Your task to perform on an android device: Search for flights from NYC to Tokyo Image 0: 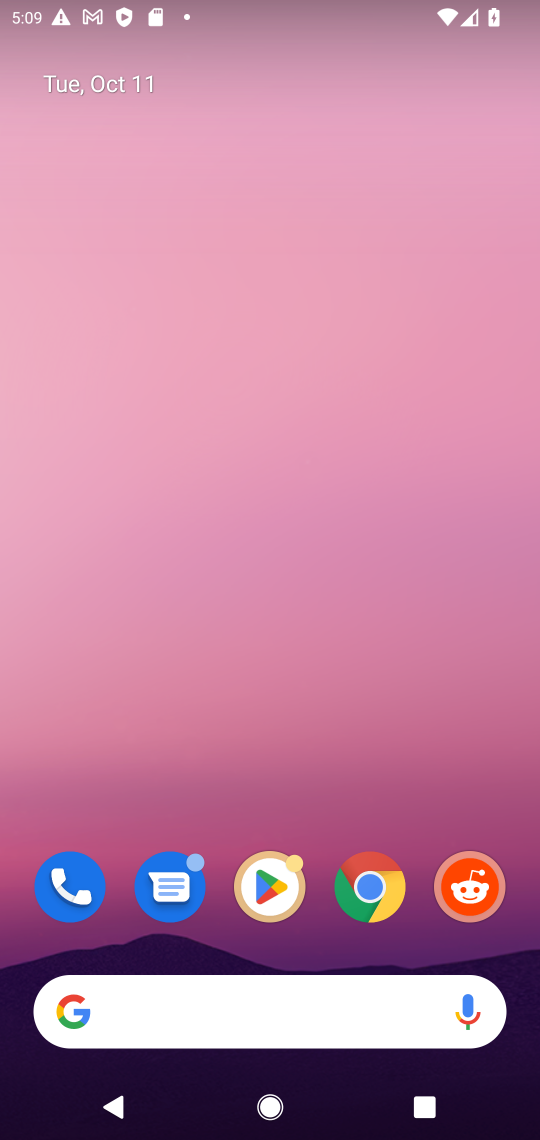
Step 0: click (195, 1017)
Your task to perform on an android device: Search for flights from NYC to Tokyo Image 1: 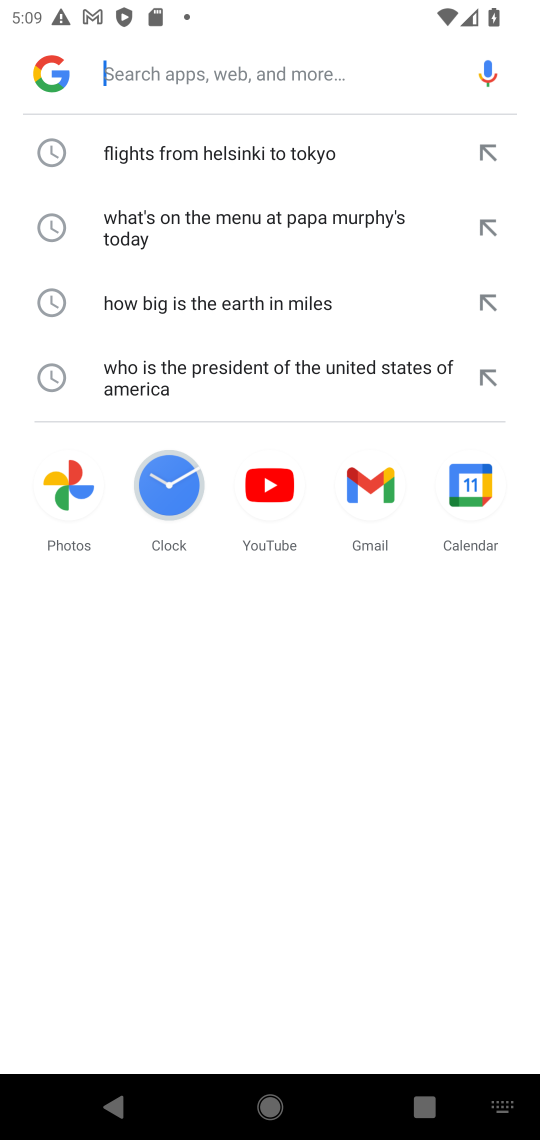
Step 1: type "flights from NYC to Tokyo"
Your task to perform on an android device: Search for flights from NYC to Tokyo Image 2: 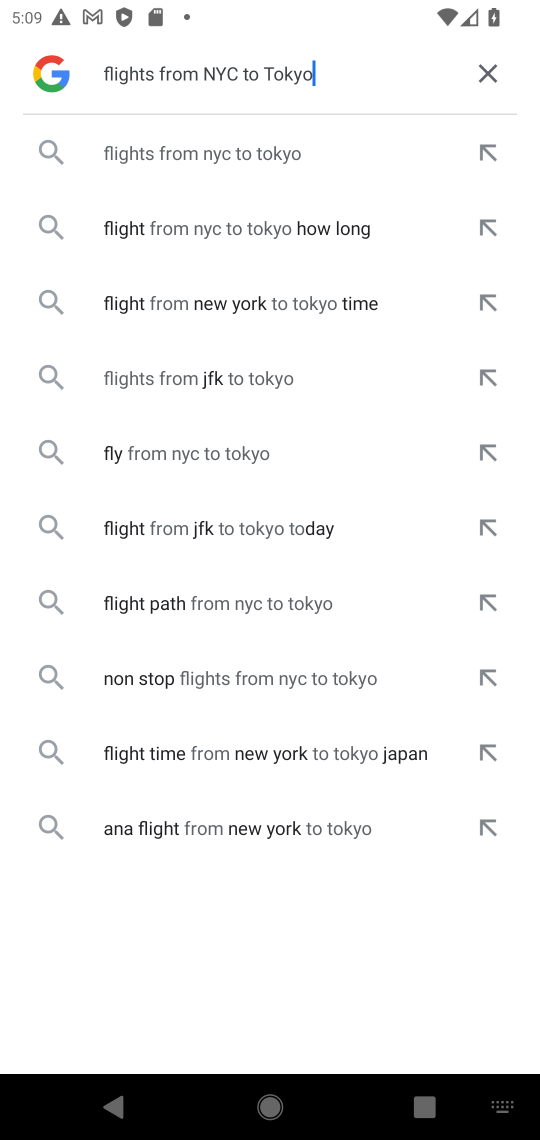
Step 2: click (220, 151)
Your task to perform on an android device: Search for flights from NYC to Tokyo Image 3: 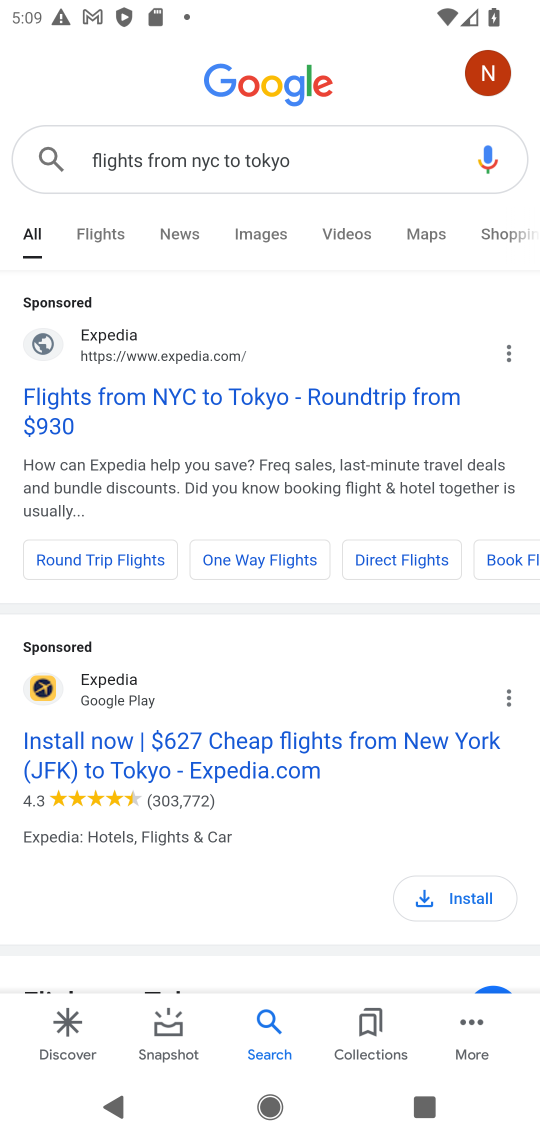
Step 3: click (176, 757)
Your task to perform on an android device: Search for flights from NYC to Tokyo Image 4: 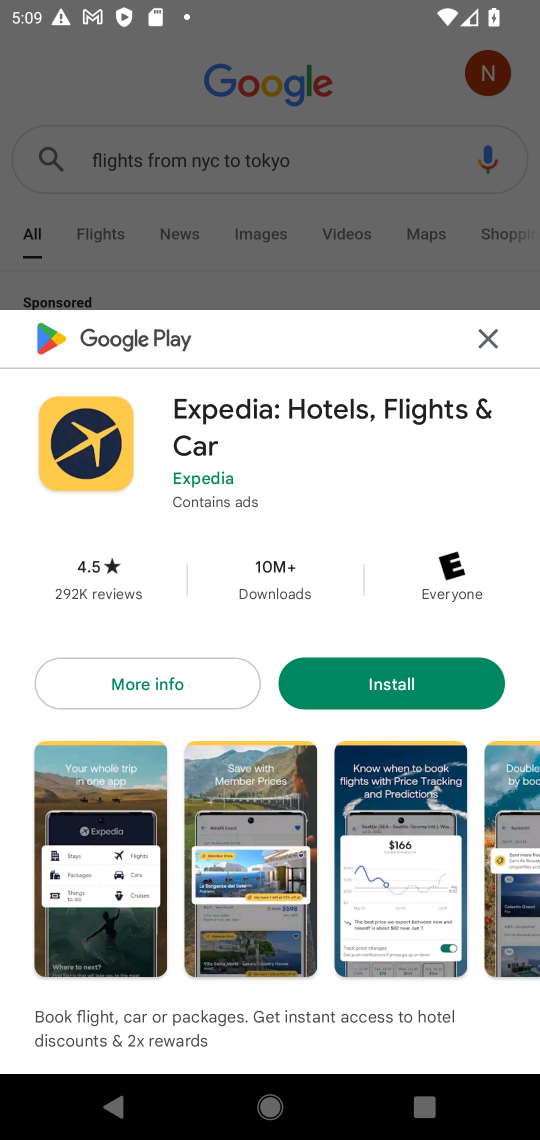
Step 4: click (491, 333)
Your task to perform on an android device: Search for flights from NYC to Tokyo Image 5: 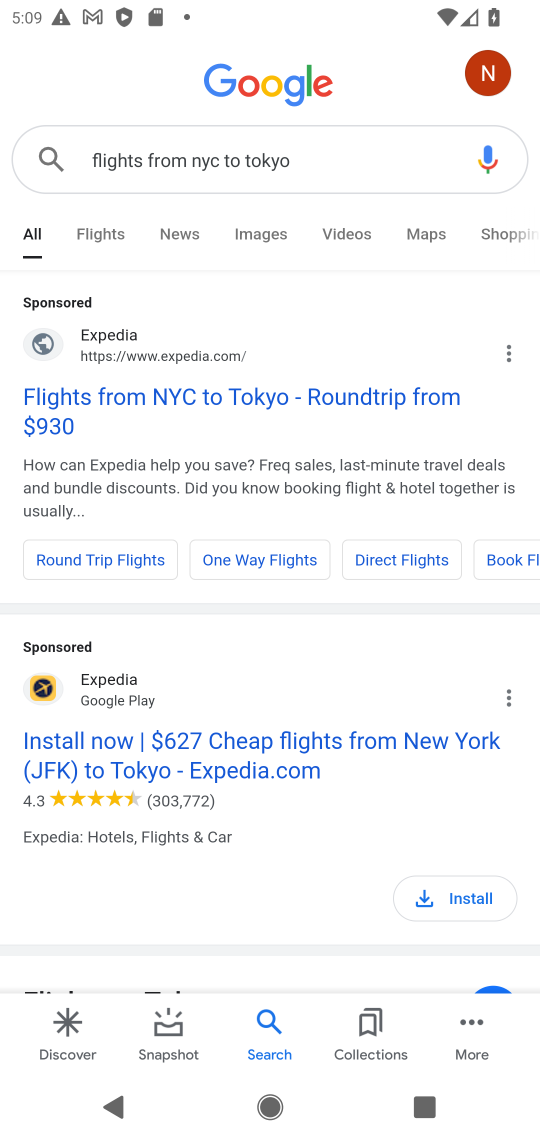
Step 5: drag from (337, 694) to (340, 386)
Your task to perform on an android device: Search for flights from NYC to Tokyo Image 6: 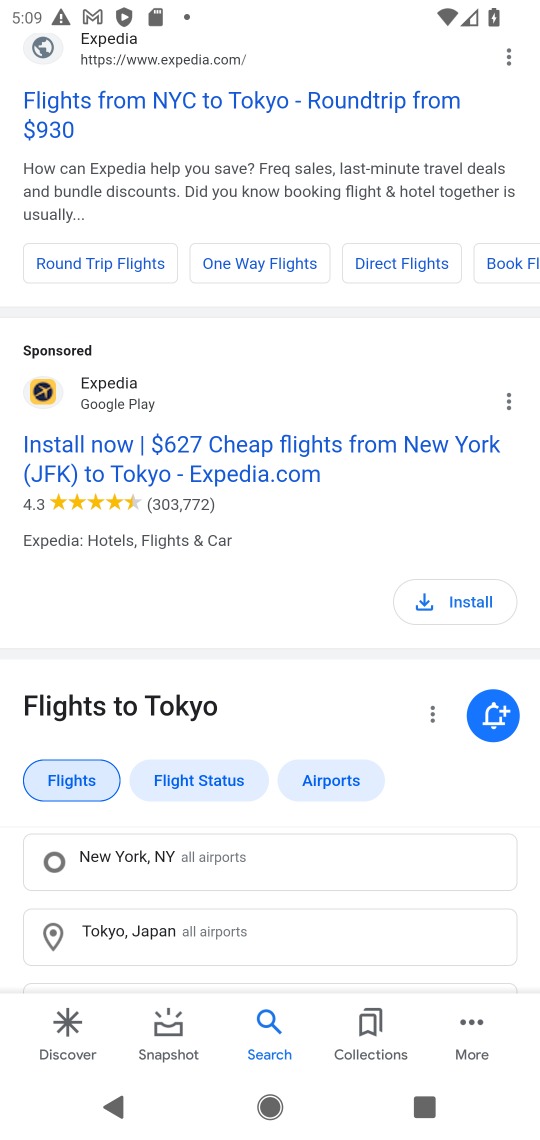
Step 6: drag from (277, 785) to (362, 265)
Your task to perform on an android device: Search for flights from NYC to Tokyo Image 7: 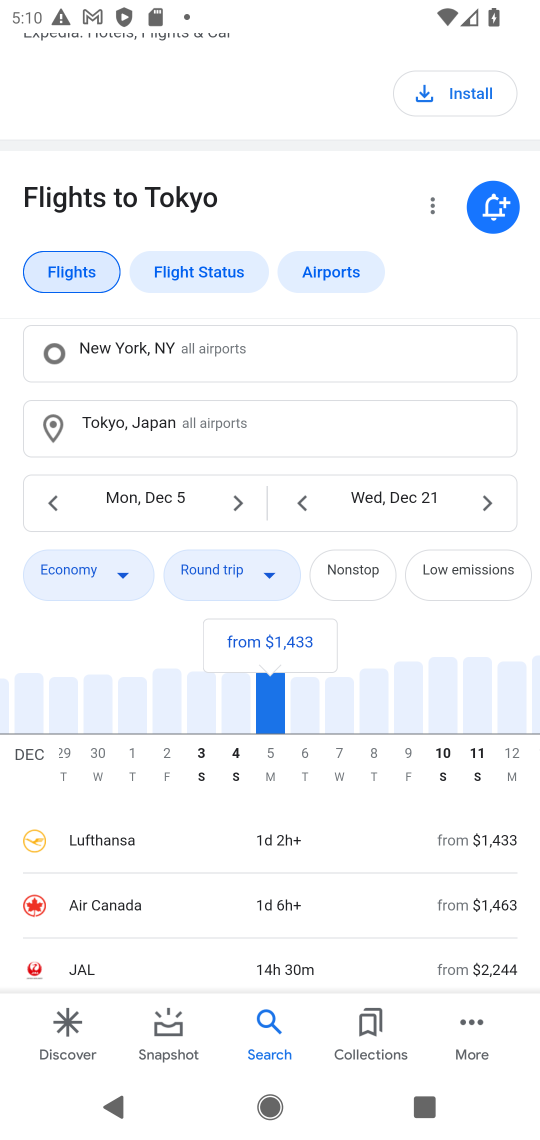
Step 7: drag from (295, 729) to (363, 379)
Your task to perform on an android device: Search for flights from NYC to Tokyo Image 8: 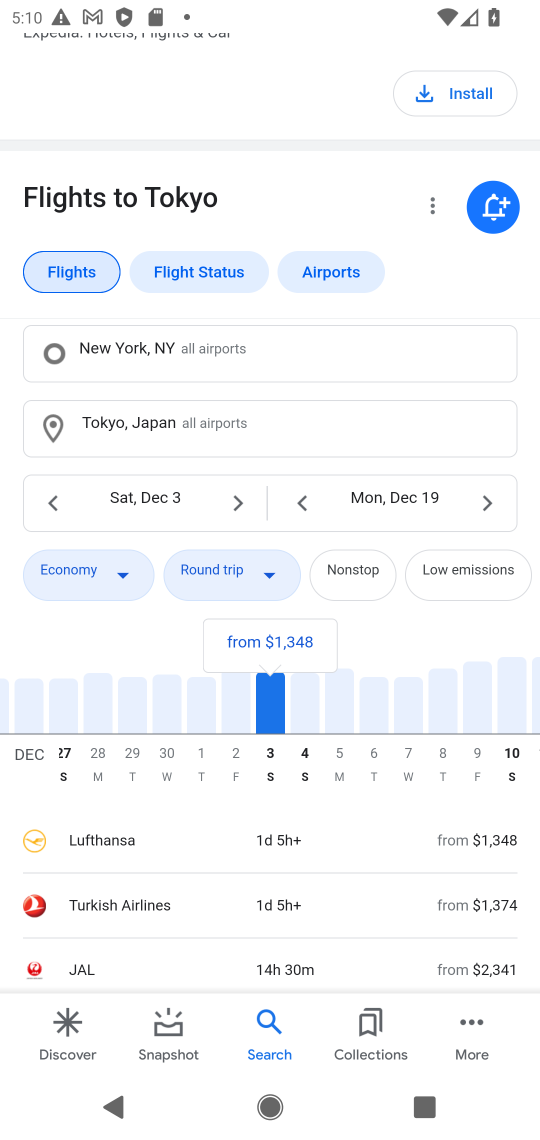
Step 8: drag from (216, 887) to (384, 179)
Your task to perform on an android device: Search for flights from NYC to Tokyo Image 9: 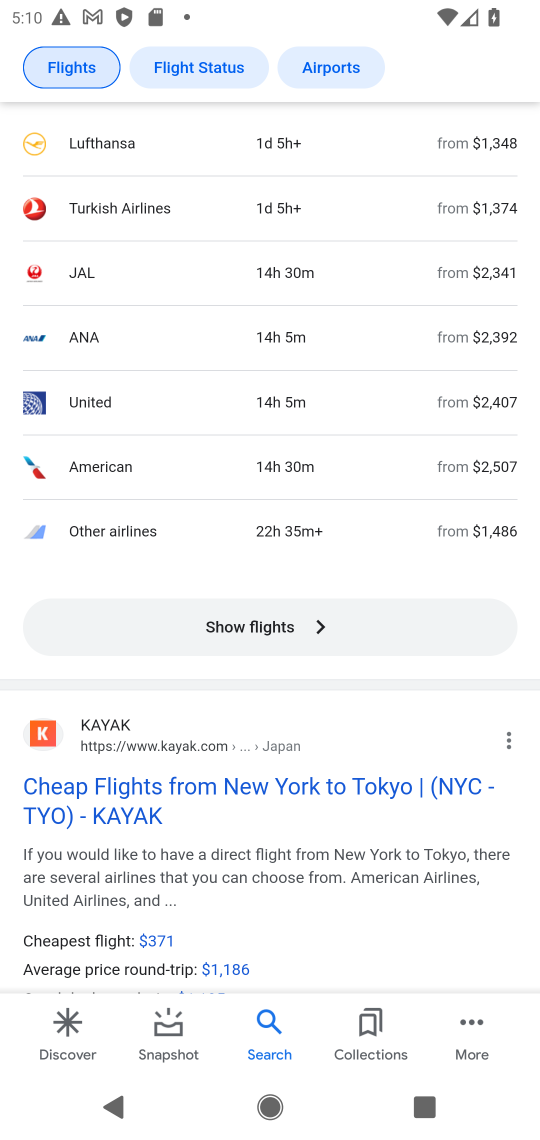
Step 9: click (247, 785)
Your task to perform on an android device: Search for flights from NYC to Tokyo Image 10: 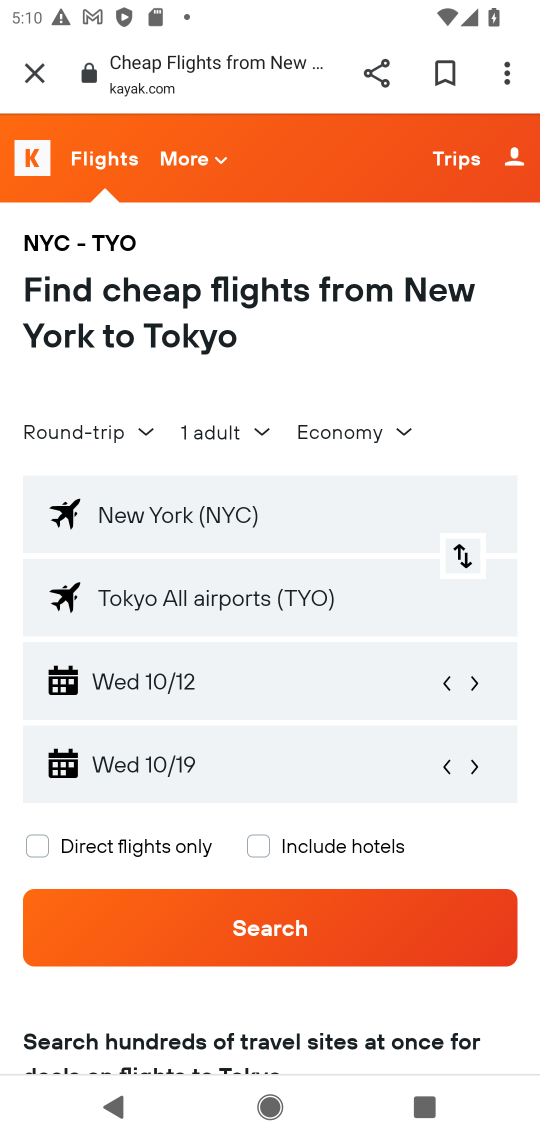
Step 10: task complete